Your task to perform on an android device: Open CNN.com Image 0: 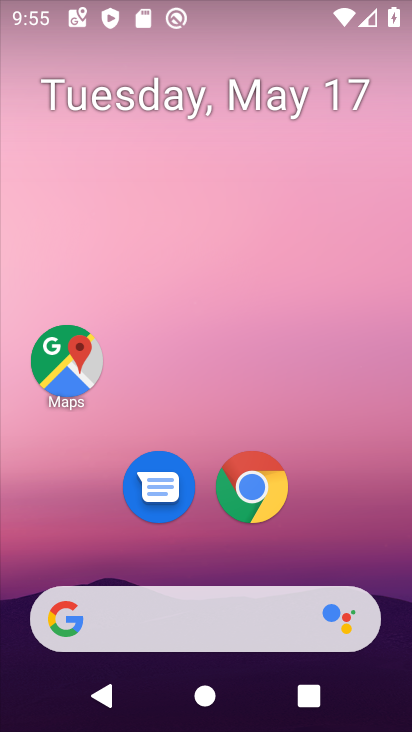
Step 0: drag from (258, 657) to (228, 235)
Your task to perform on an android device: Open CNN.com Image 1: 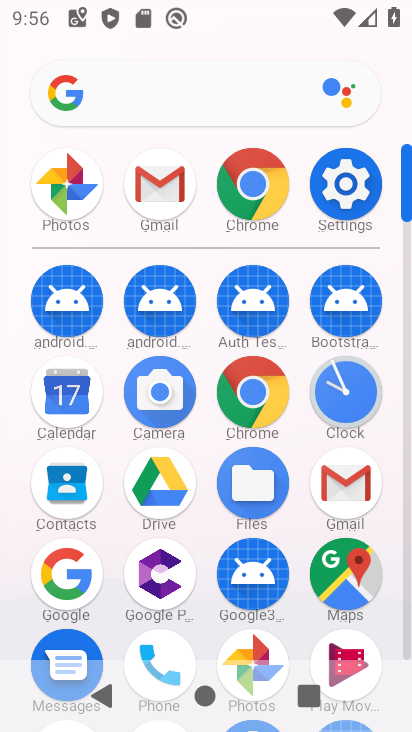
Step 1: click (253, 227)
Your task to perform on an android device: Open CNN.com Image 2: 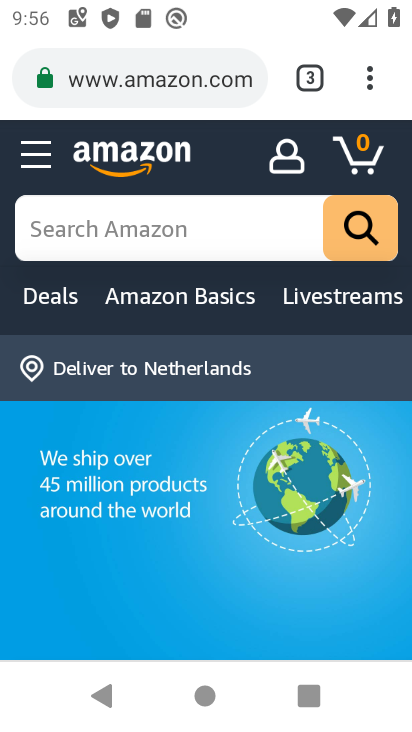
Step 2: click (141, 95)
Your task to perform on an android device: Open CNN.com Image 3: 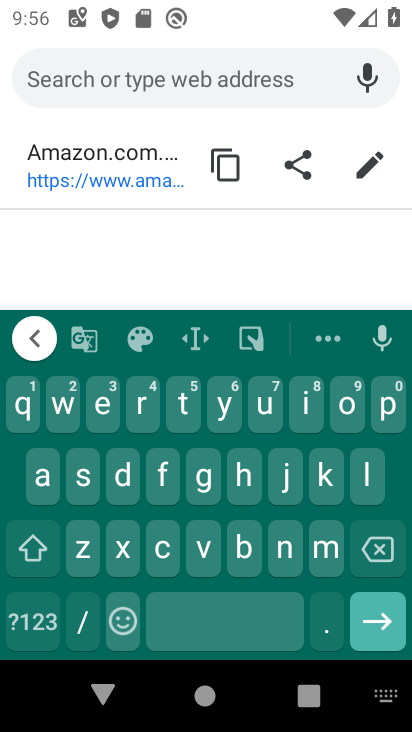
Step 3: click (162, 545)
Your task to perform on an android device: Open CNN.com Image 4: 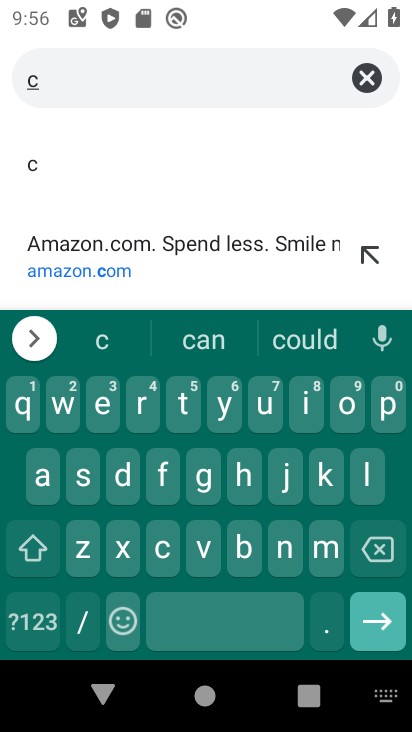
Step 4: click (288, 563)
Your task to perform on an android device: Open CNN.com Image 5: 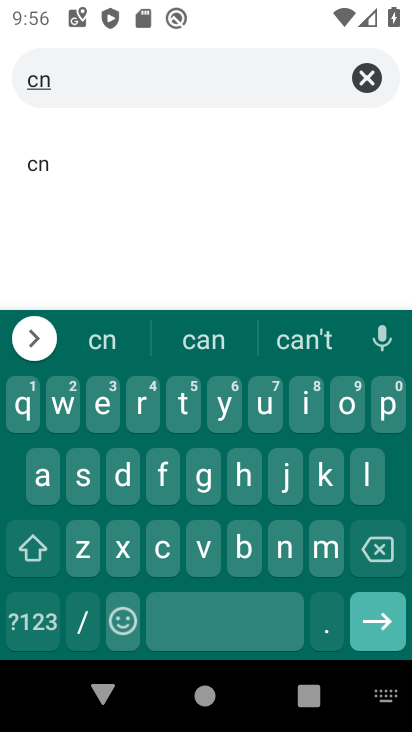
Step 5: click (286, 562)
Your task to perform on an android device: Open CNN.com Image 6: 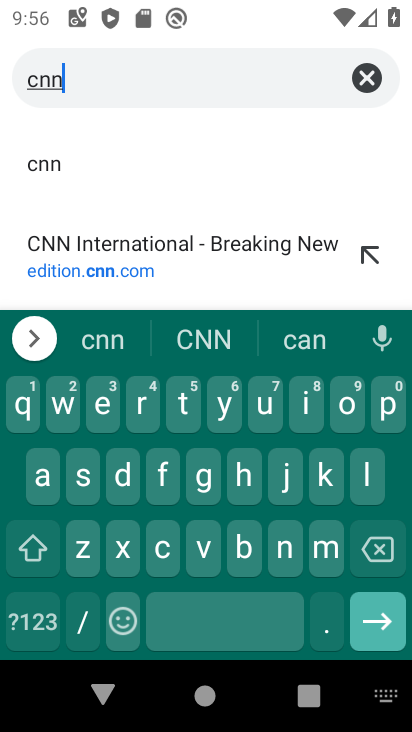
Step 6: click (328, 638)
Your task to perform on an android device: Open CNN.com Image 7: 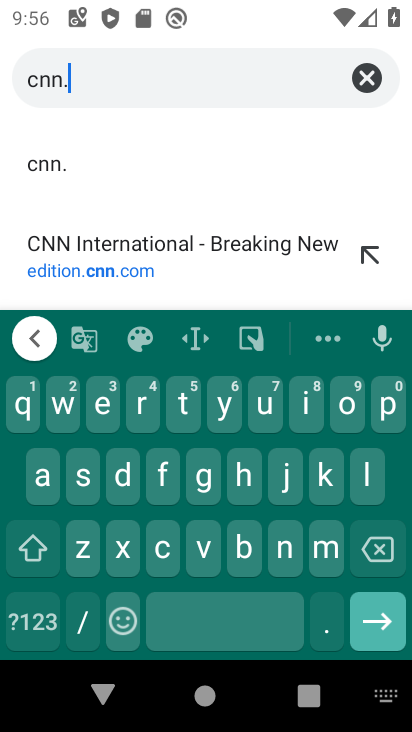
Step 7: click (163, 543)
Your task to perform on an android device: Open CNN.com Image 8: 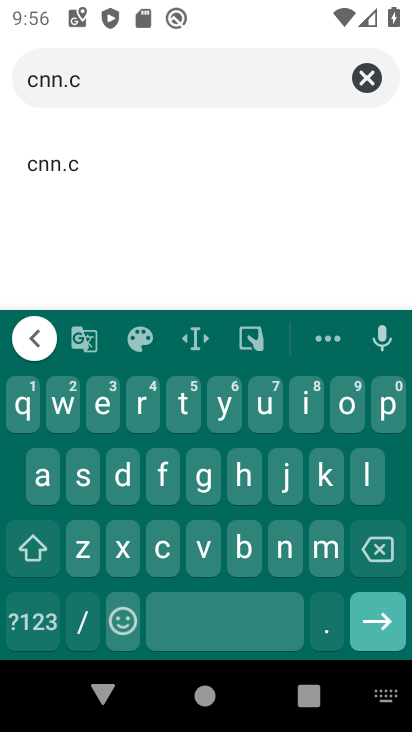
Step 8: click (332, 416)
Your task to perform on an android device: Open CNN.com Image 9: 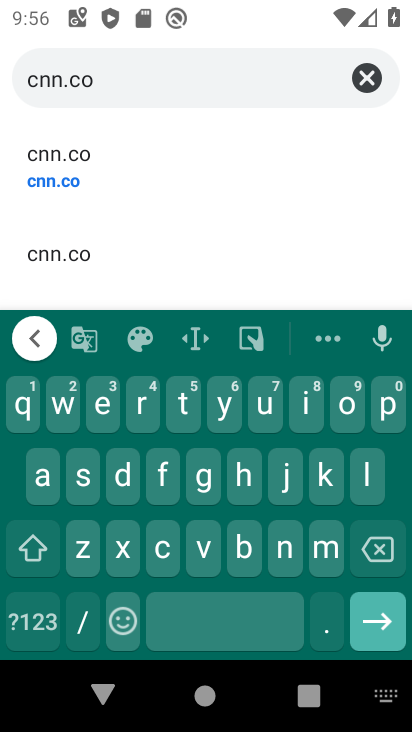
Step 9: click (329, 561)
Your task to perform on an android device: Open CNN.com Image 10: 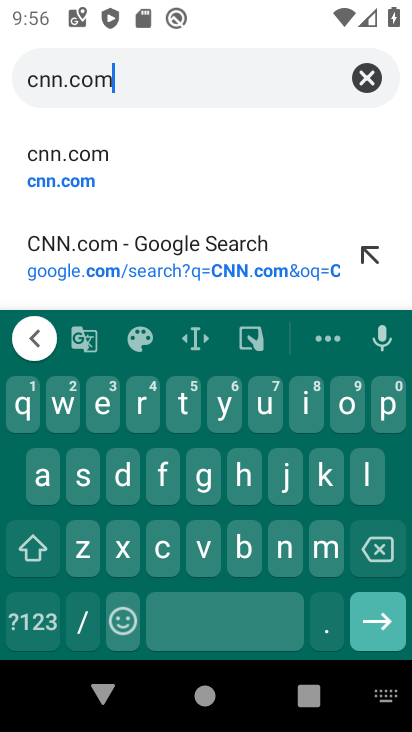
Step 10: click (383, 625)
Your task to perform on an android device: Open CNN.com Image 11: 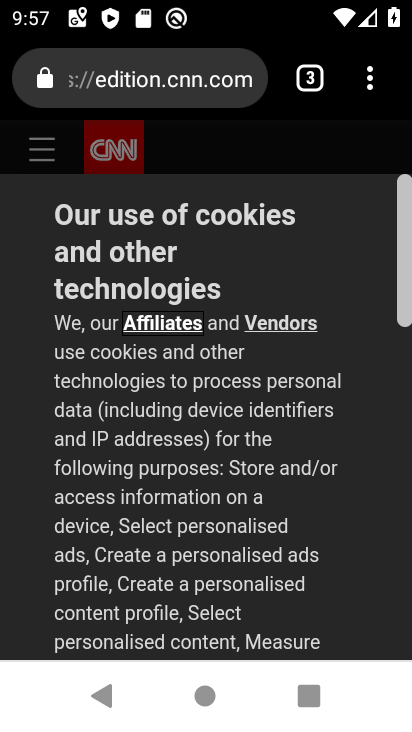
Step 11: drag from (202, 586) to (191, 340)
Your task to perform on an android device: Open CNN.com Image 12: 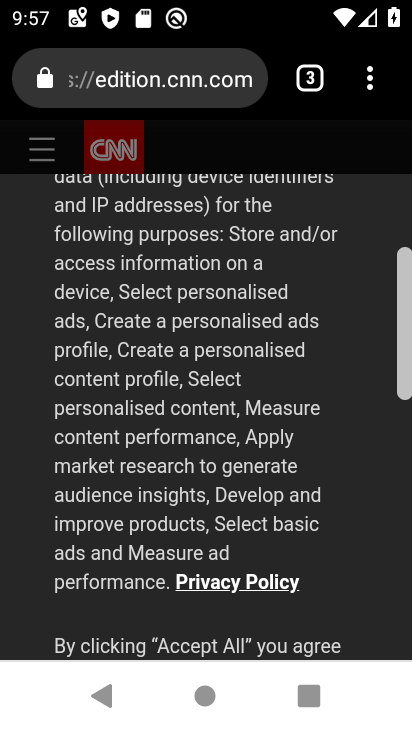
Step 12: drag from (172, 458) to (151, 267)
Your task to perform on an android device: Open CNN.com Image 13: 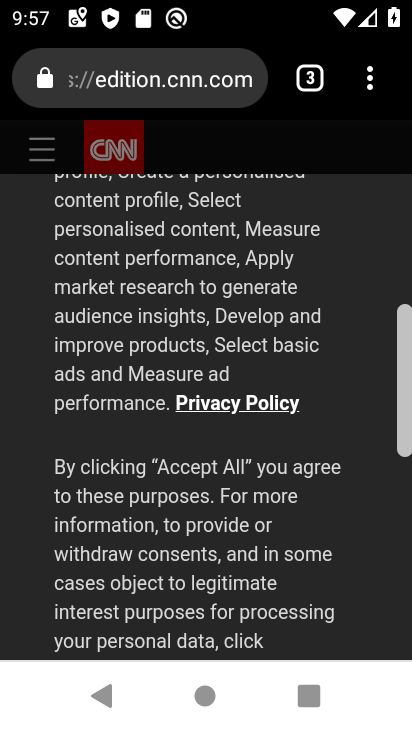
Step 13: drag from (172, 528) to (139, 248)
Your task to perform on an android device: Open CNN.com Image 14: 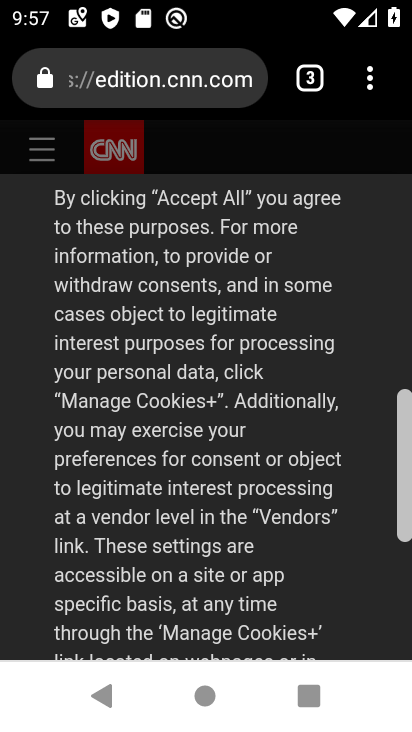
Step 14: drag from (89, 469) to (116, 228)
Your task to perform on an android device: Open CNN.com Image 15: 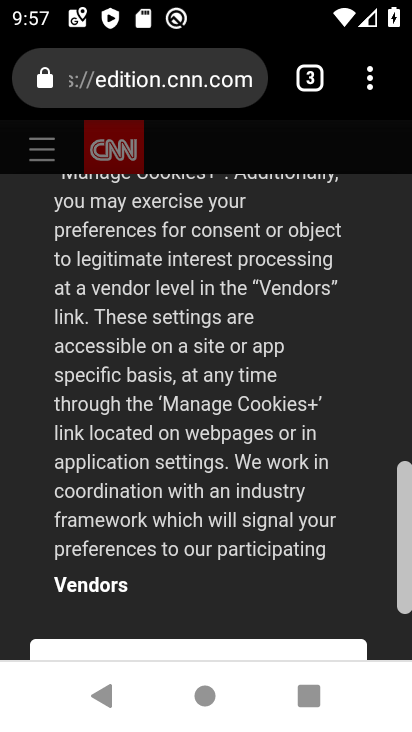
Step 15: drag from (168, 515) to (174, 335)
Your task to perform on an android device: Open CNN.com Image 16: 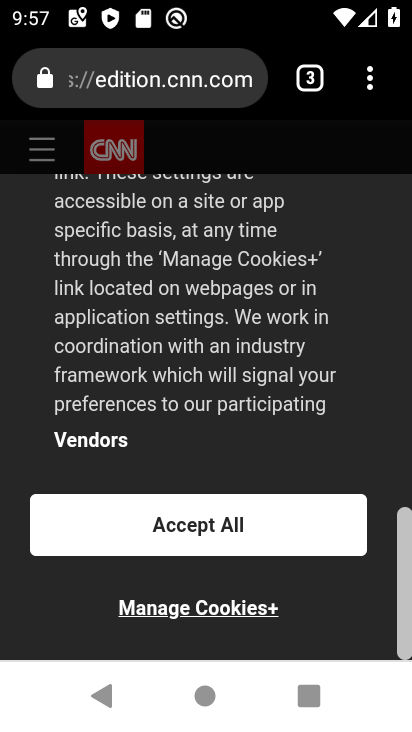
Step 16: click (210, 544)
Your task to perform on an android device: Open CNN.com Image 17: 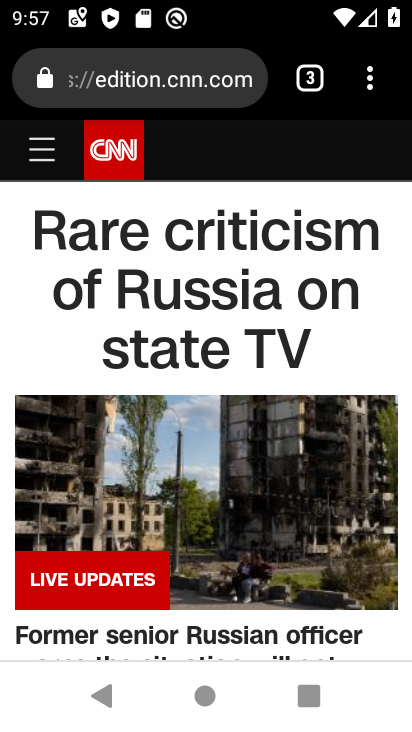
Step 17: task complete